Your task to perform on an android device: Do I have any events this weekend? Image 0: 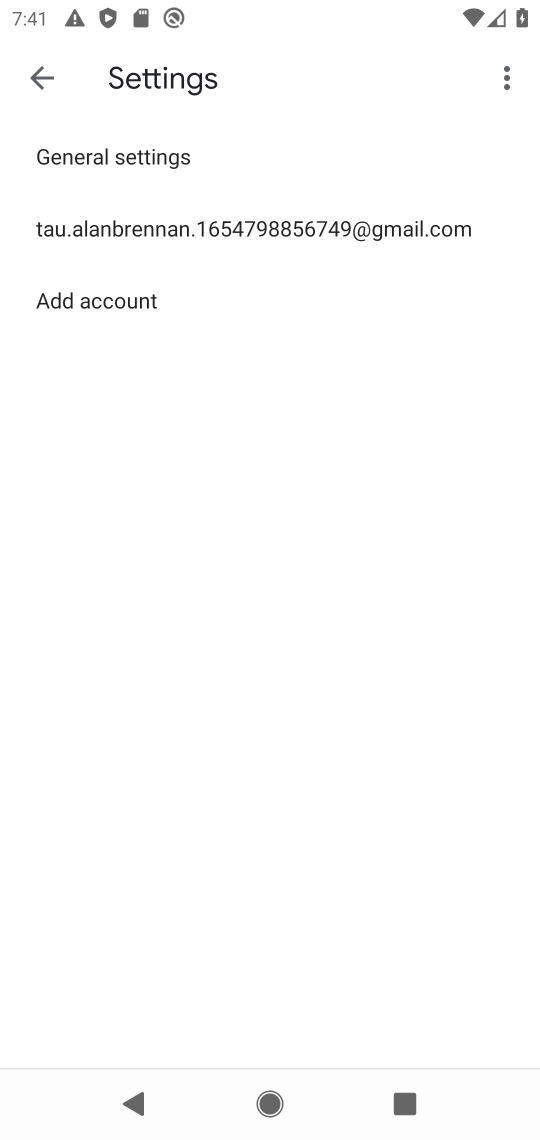
Step 0: press home button
Your task to perform on an android device: Do I have any events this weekend? Image 1: 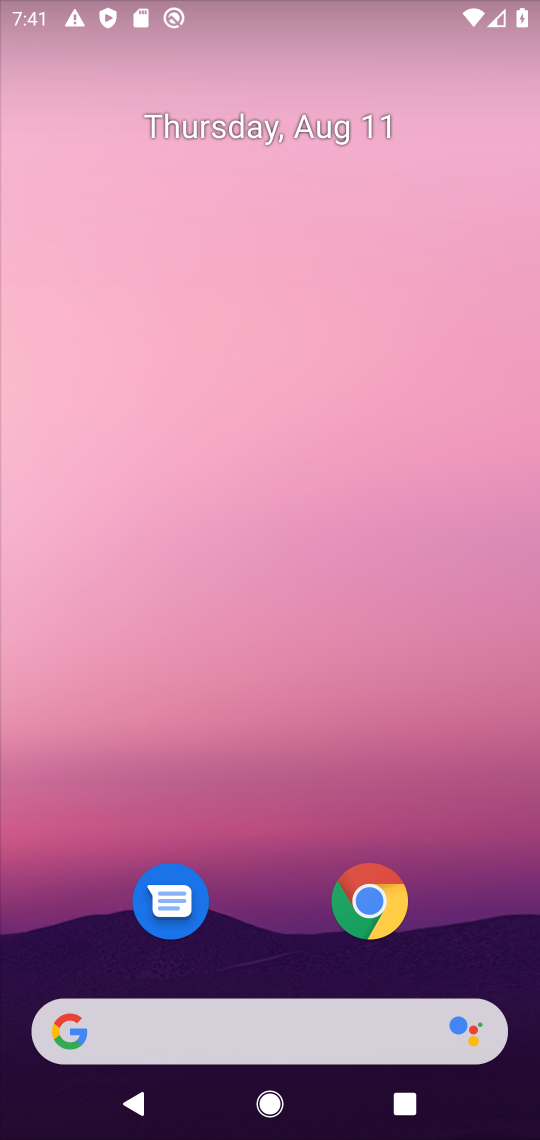
Step 1: drag from (295, 764) to (346, 199)
Your task to perform on an android device: Do I have any events this weekend? Image 2: 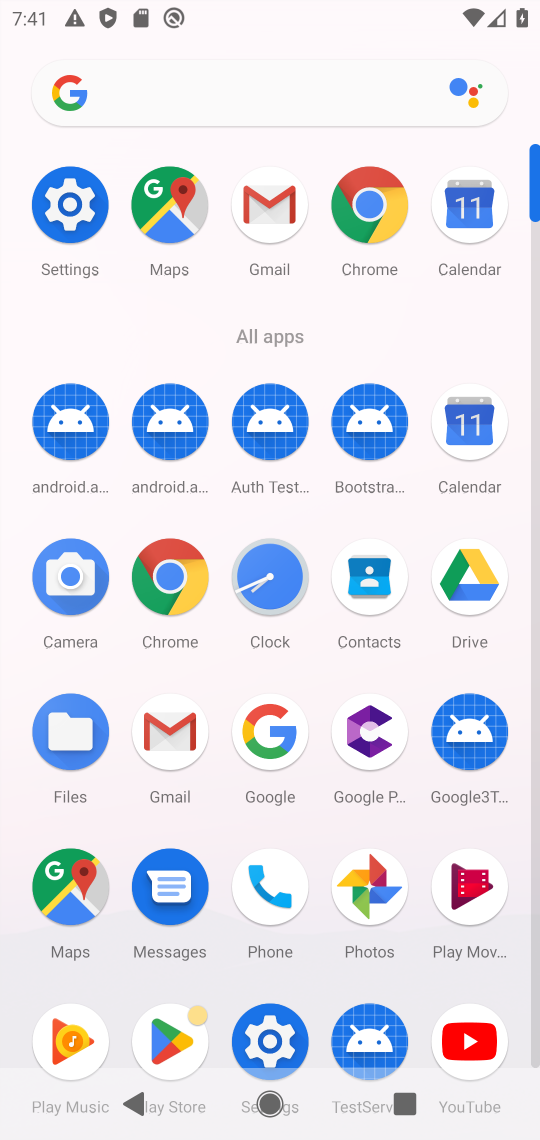
Step 2: click (450, 426)
Your task to perform on an android device: Do I have any events this weekend? Image 3: 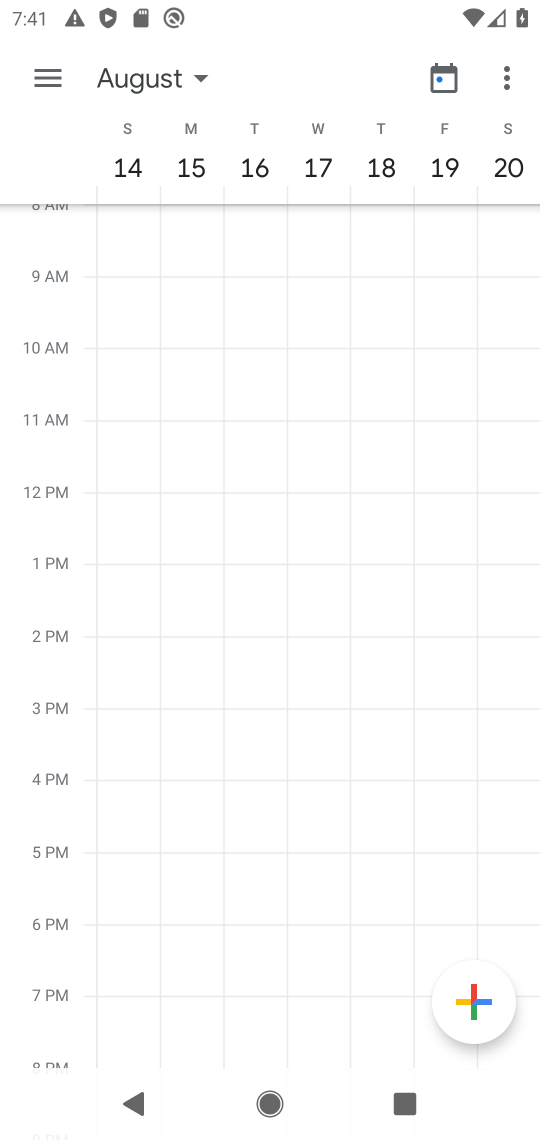
Step 3: click (502, 161)
Your task to perform on an android device: Do I have any events this weekend? Image 4: 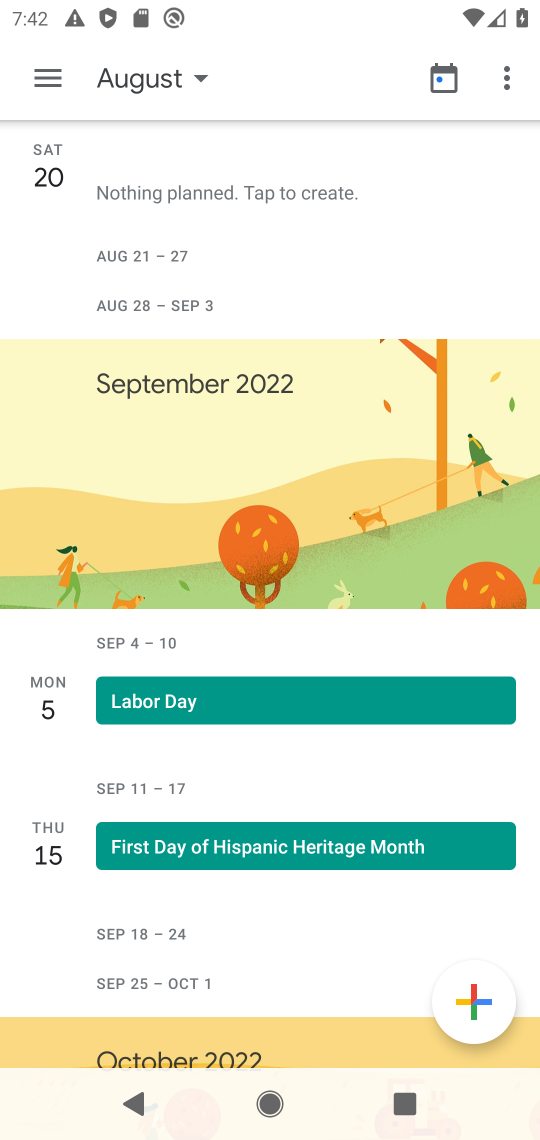
Step 4: click (130, 75)
Your task to perform on an android device: Do I have any events this weekend? Image 5: 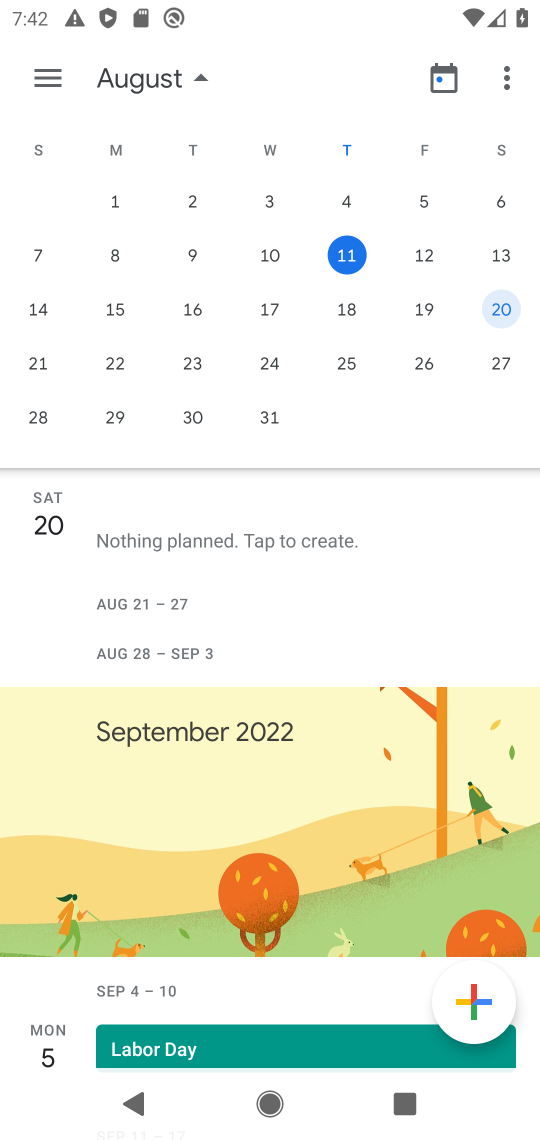
Step 5: click (525, 247)
Your task to perform on an android device: Do I have any events this weekend? Image 6: 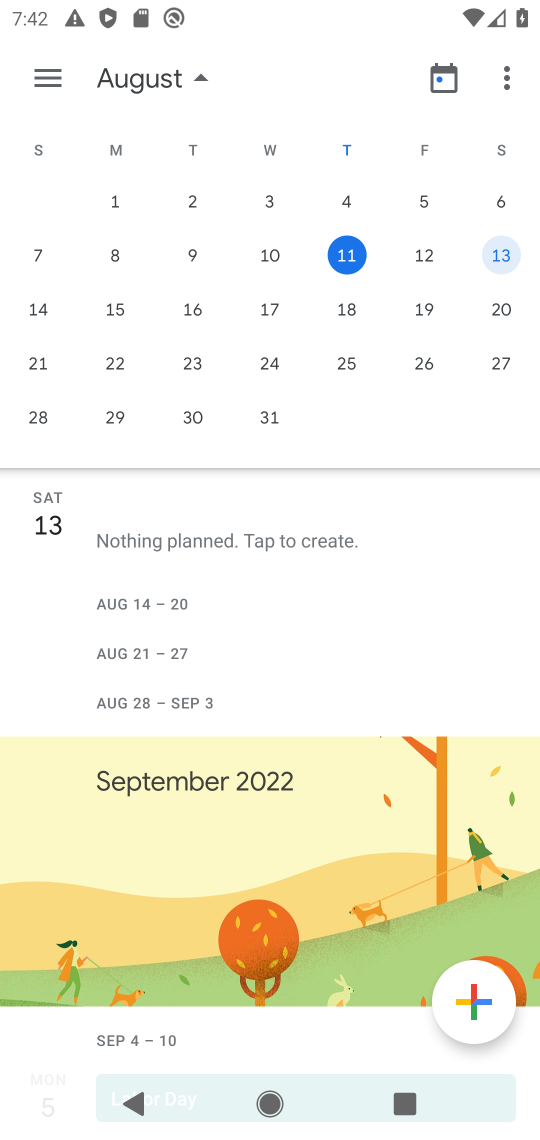
Step 6: click (505, 252)
Your task to perform on an android device: Do I have any events this weekend? Image 7: 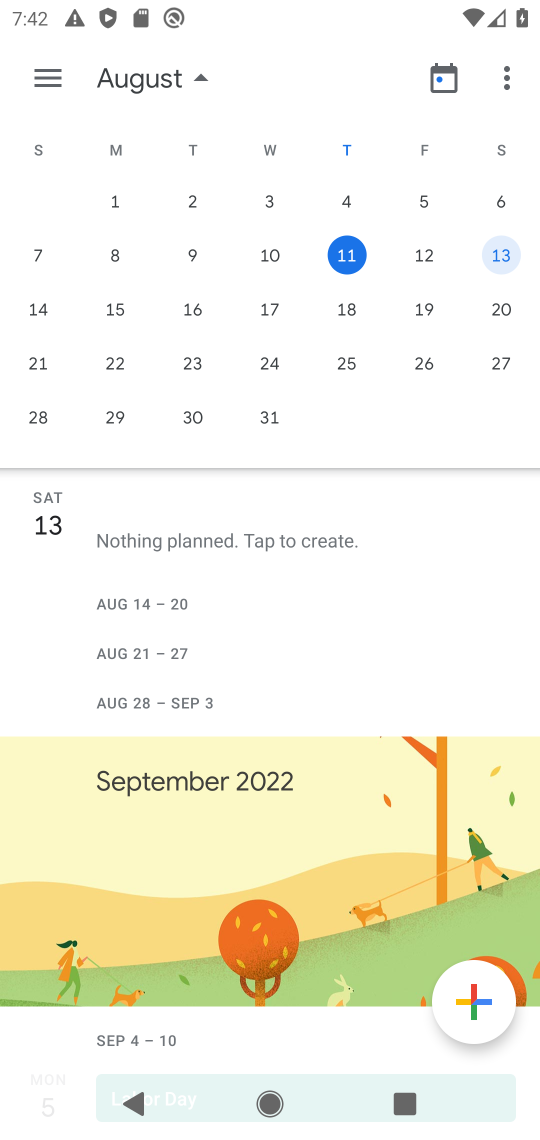
Step 7: click (505, 252)
Your task to perform on an android device: Do I have any events this weekend? Image 8: 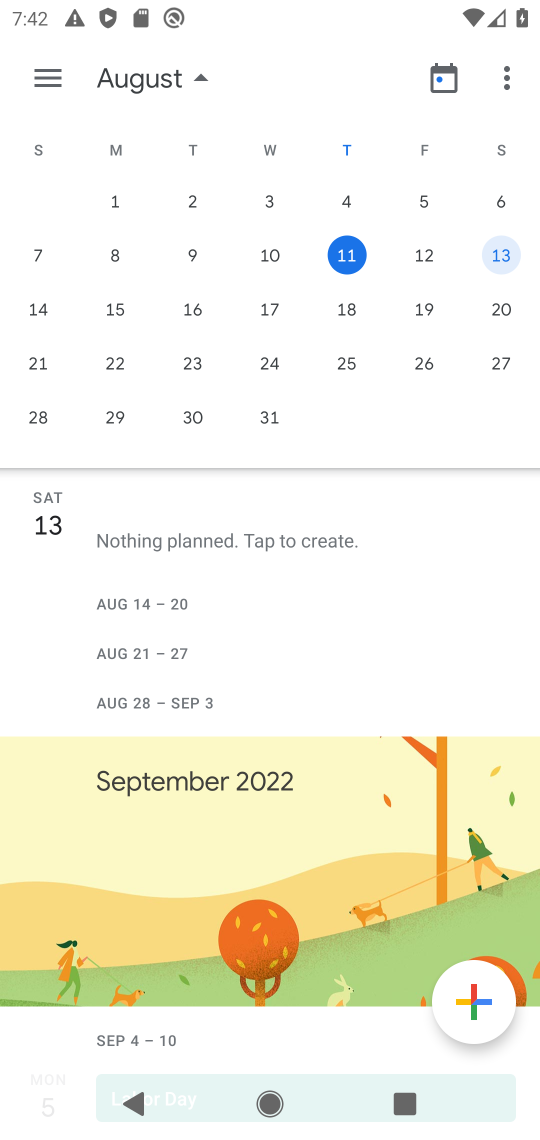
Step 8: click (485, 256)
Your task to perform on an android device: Do I have any events this weekend? Image 9: 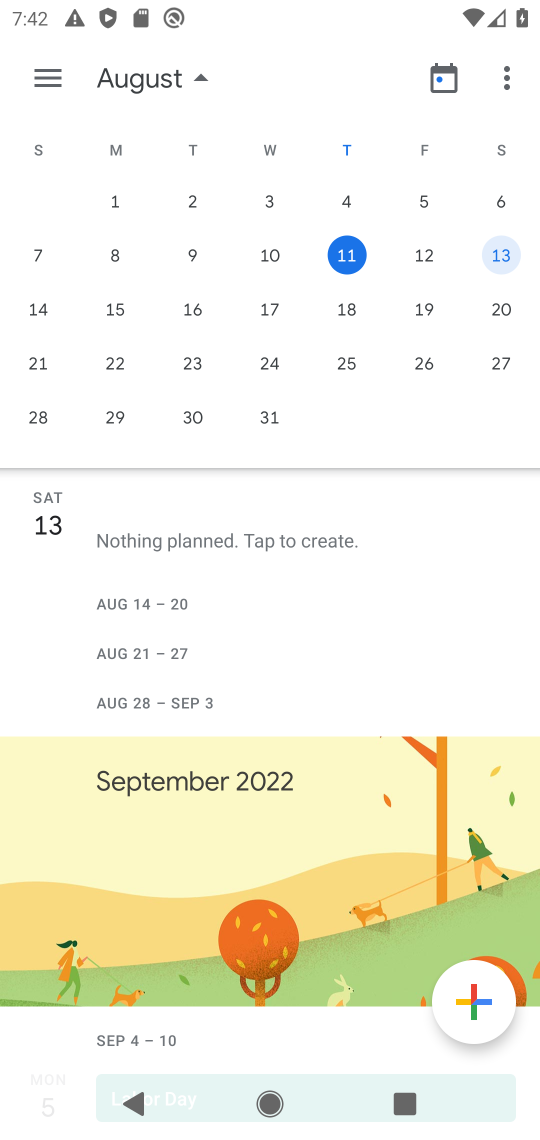
Step 9: task complete